Your task to perform on an android device: Open Chrome and go to the settings page Image 0: 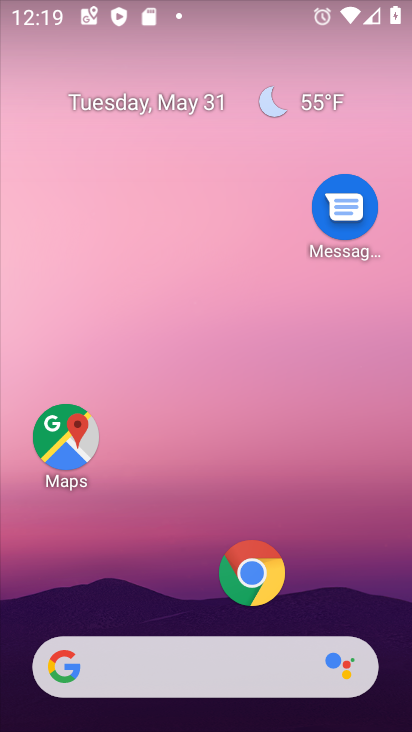
Step 0: click (251, 582)
Your task to perform on an android device: Open Chrome and go to the settings page Image 1: 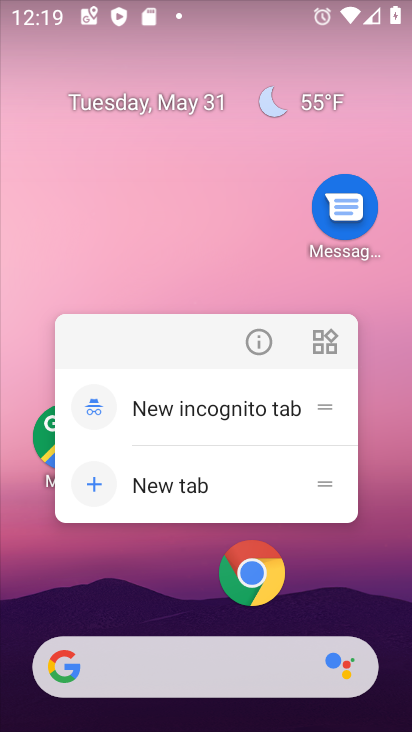
Step 1: click (248, 569)
Your task to perform on an android device: Open Chrome and go to the settings page Image 2: 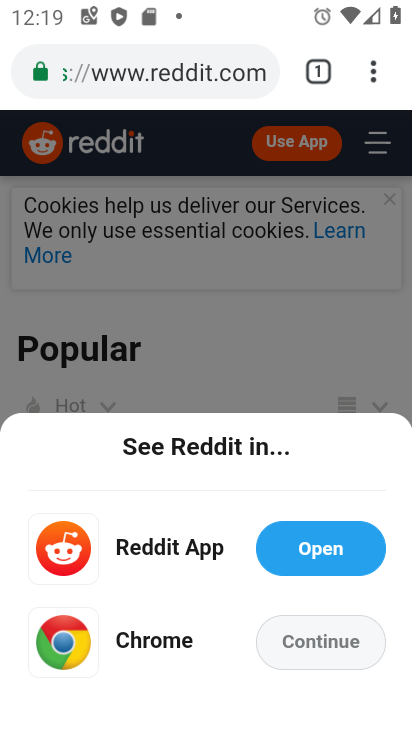
Step 2: click (368, 61)
Your task to perform on an android device: Open Chrome and go to the settings page Image 3: 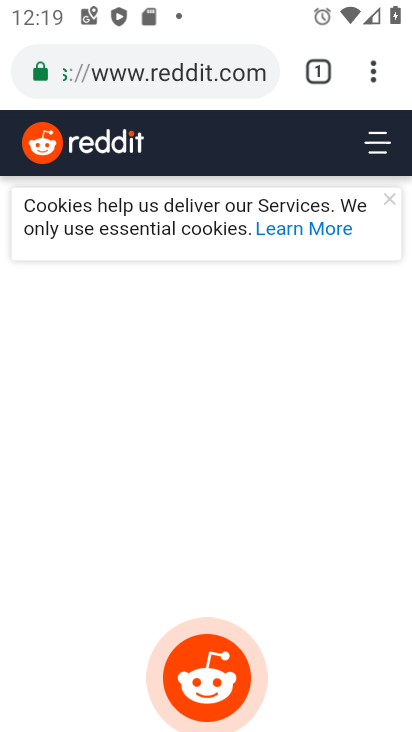
Step 3: click (368, 61)
Your task to perform on an android device: Open Chrome and go to the settings page Image 4: 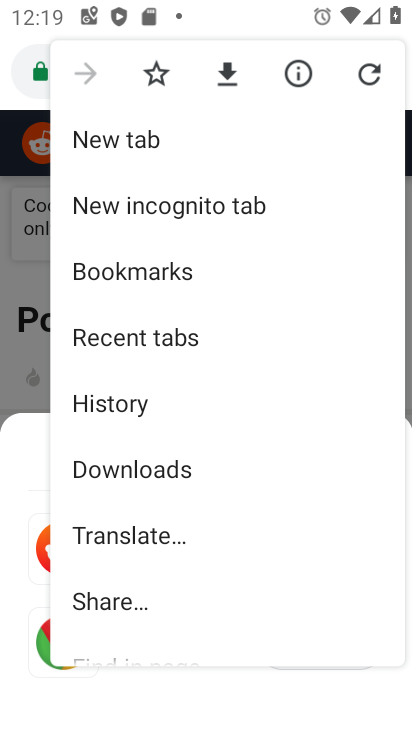
Step 4: drag from (207, 565) to (183, 234)
Your task to perform on an android device: Open Chrome and go to the settings page Image 5: 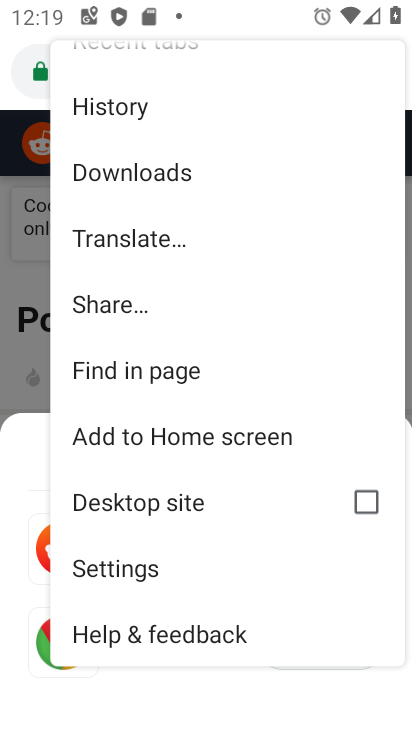
Step 5: click (150, 576)
Your task to perform on an android device: Open Chrome and go to the settings page Image 6: 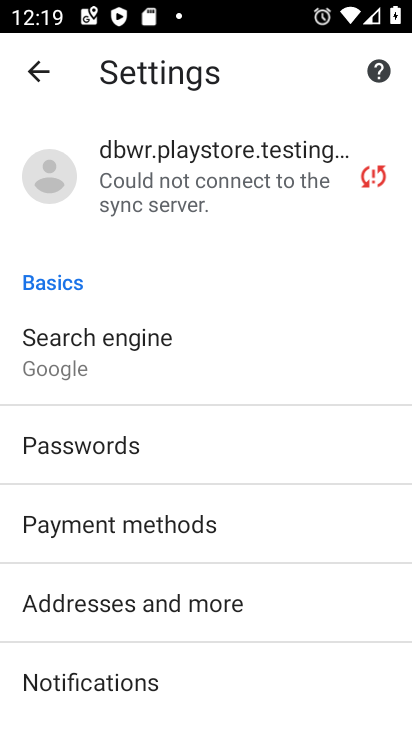
Step 6: task complete